Your task to perform on an android device: set the stopwatch Image 0: 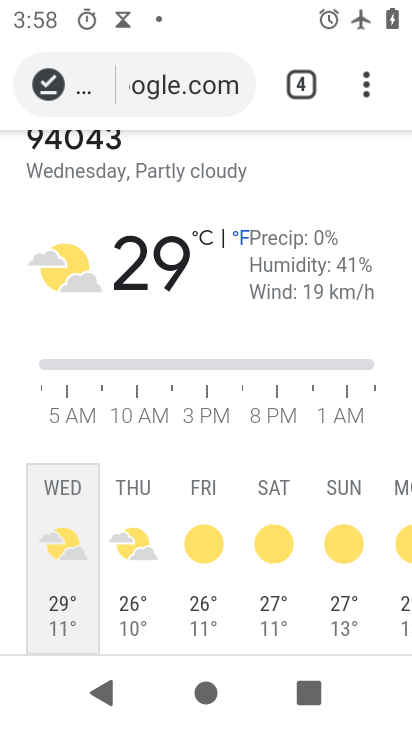
Step 0: press home button
Your task to perform on an android device: set the stopwatch Image 1: 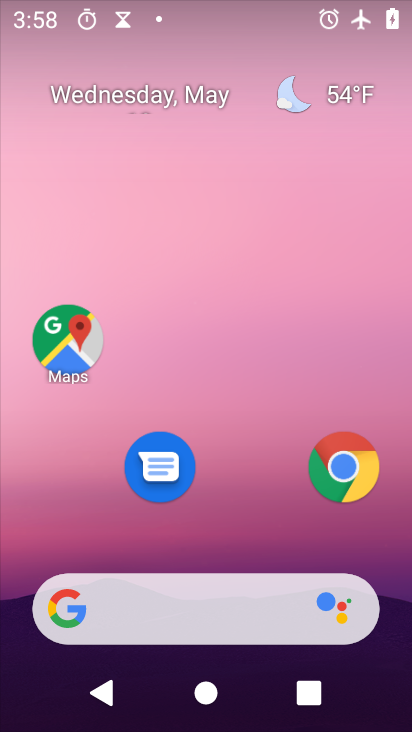
Step 1: drag from (226, 544) to (225, 92)
Your task to perform on an android device: set the stopwatch Image 2: 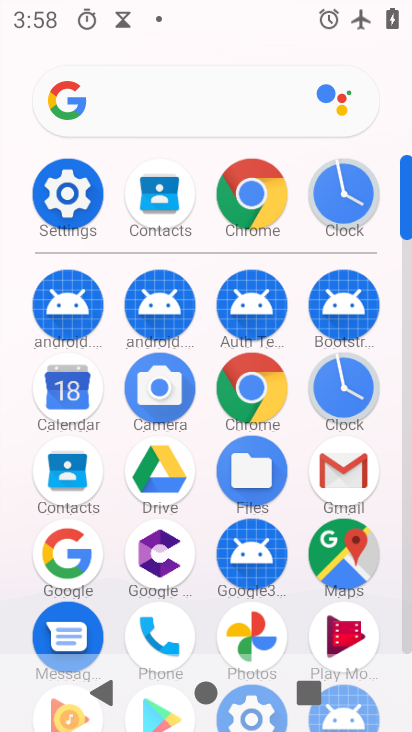
Step 2: click (361, 395)
Your task to perform on an android device: set the stopwatch Image 3: 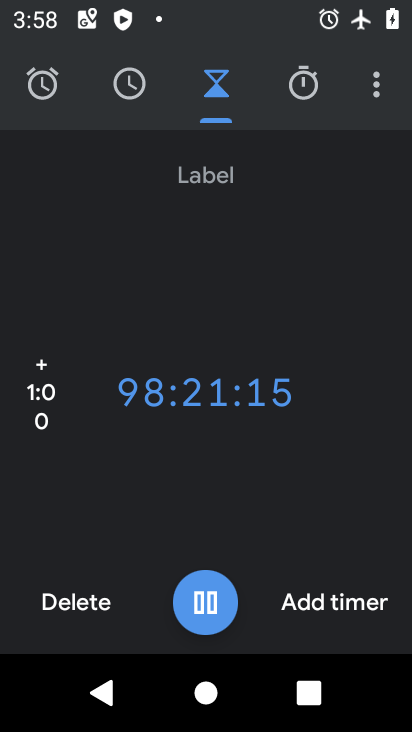
Step 3: click (321, 111)
Your task to perform on an android device: set the stopwatch Image 4: 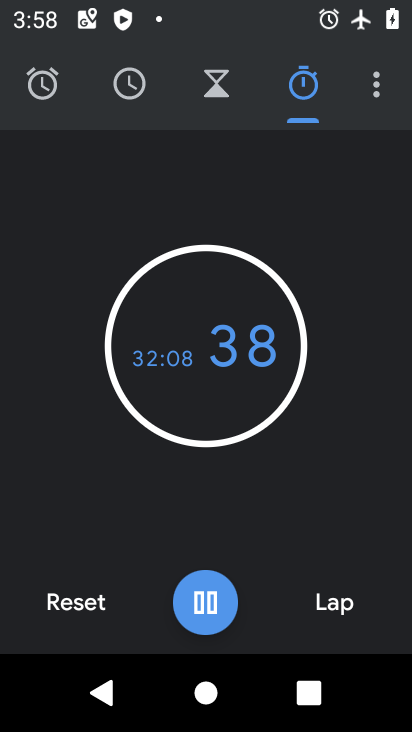
Step 4: task complete